Your task to perform on an android device: Open eBay Image 0: 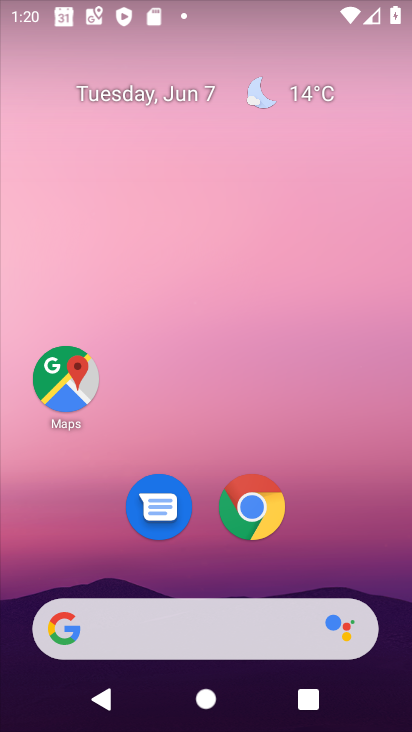
Step 0: click (252, 507)
Your task to perform on an android device: Open eBay Image 1: 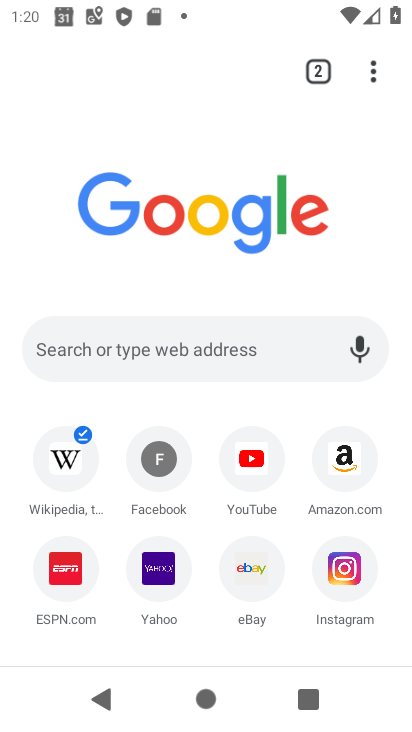
Step 1: click (247, 563)
Your task to perform on an android device: Open eBay Image 2: 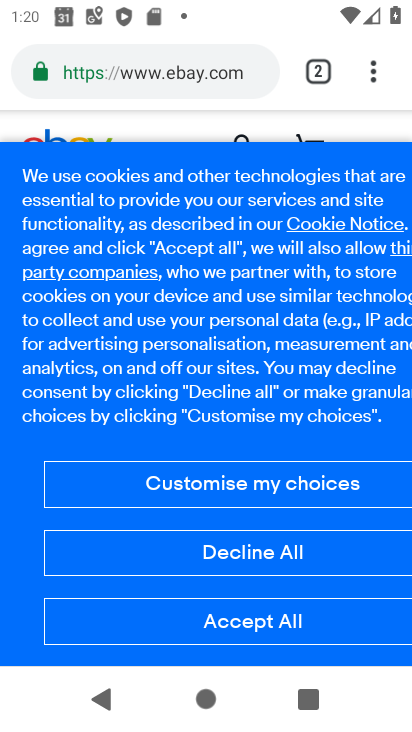
Step 2: task complete